Your task to perform on an android device: choose inbox layout in the gmail app Image 0: 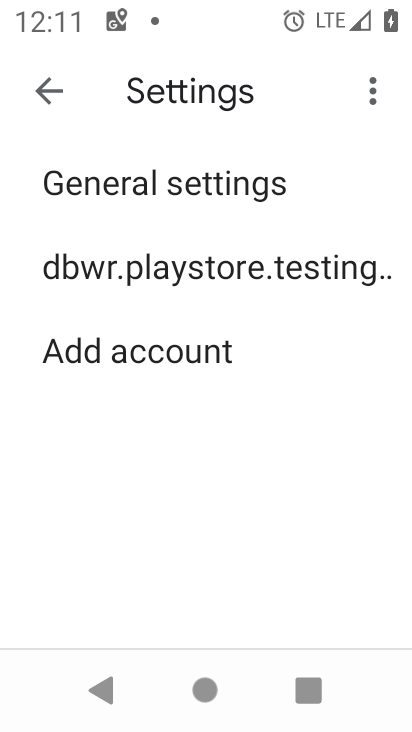
Step 0: press home button
Your task to perform on an android device: choose inbox layout in the gmail app Image 1: 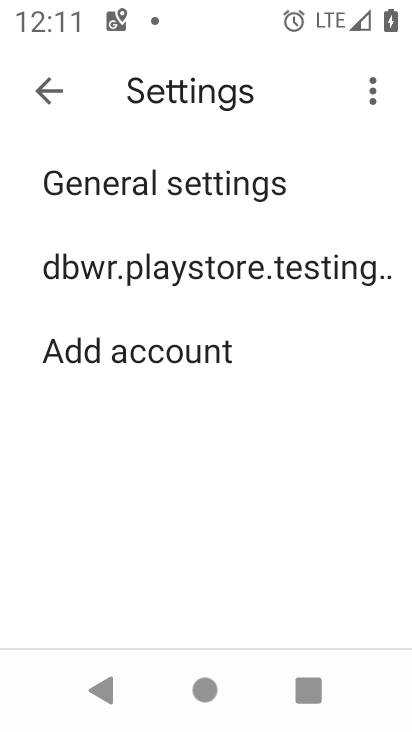
Step 1: press home button
Your task to perform on an android device: choose inbox layout in the gmail app Image 2: 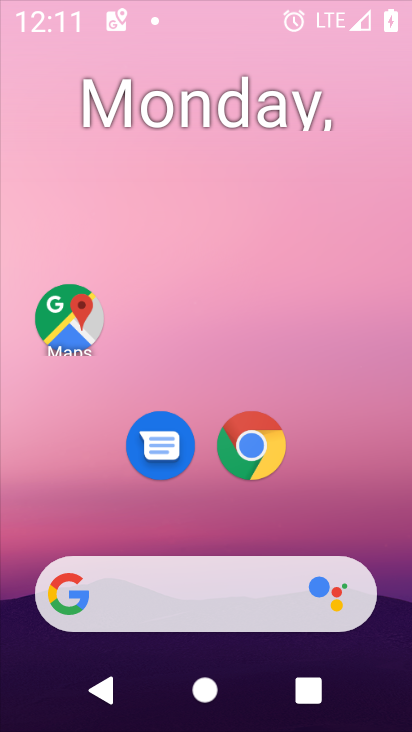
Step 2: drag from (198, 600) to (227, 265)
Your task to perform on an android device: choose inbox layout in the gmail app Image 3: 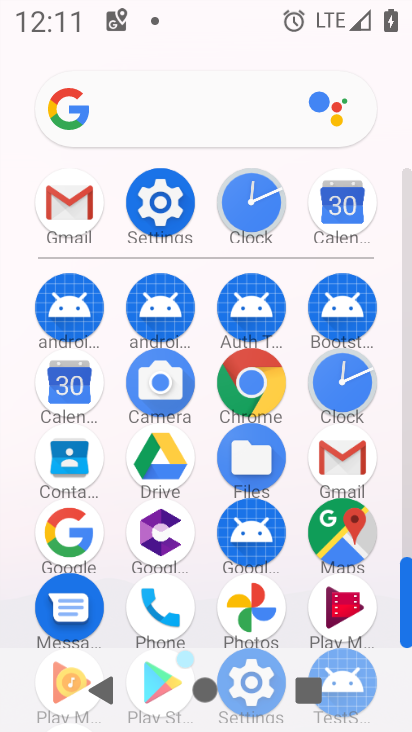
Step 3: click (67, 197)
Your task to perform on an android device: choose inbox layout in the gmail app Image 4: 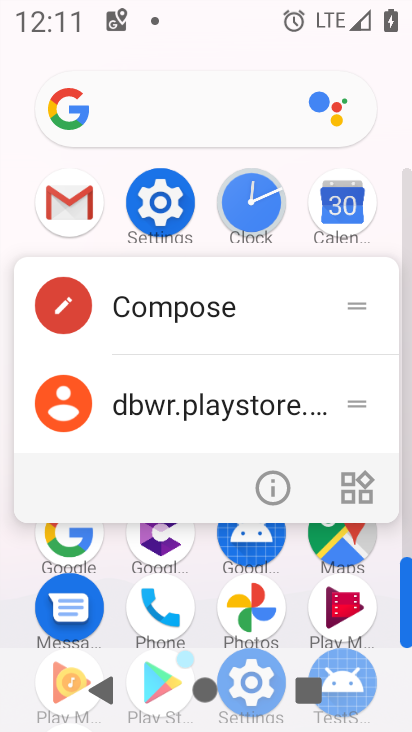
Step 4: click (212, 402)
Your task to perform on an android device: choose inbox layout in the gmail app Image 5: 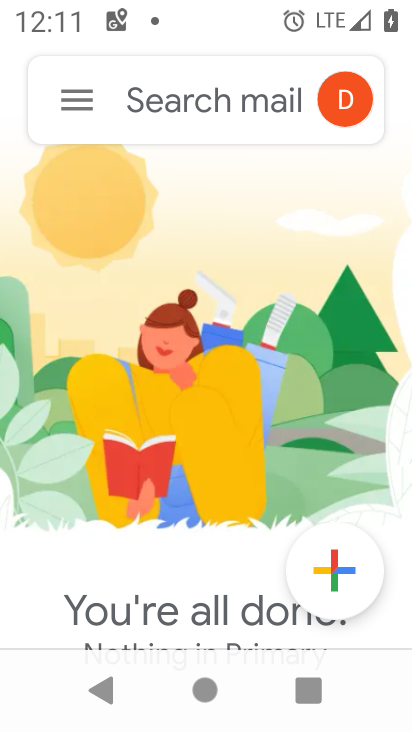
Step 5: click (79, 104)
Your task to perform on an android device: choose inbox layout in the gmail app Image 6: 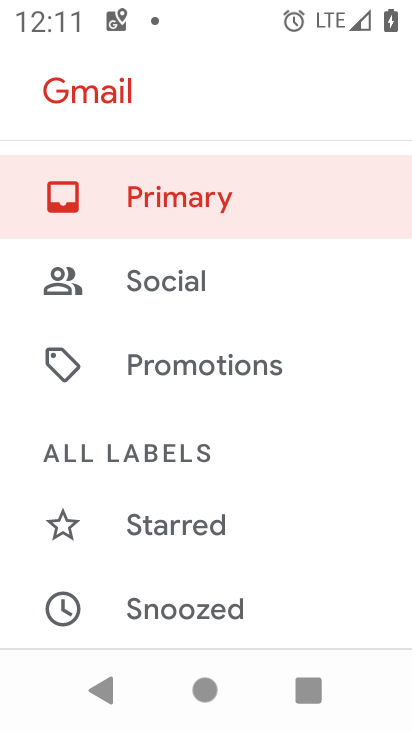
Step 6: click (166, 183)
Your task to perform on an android device: choose inbox layout in the gmail app Image 7: 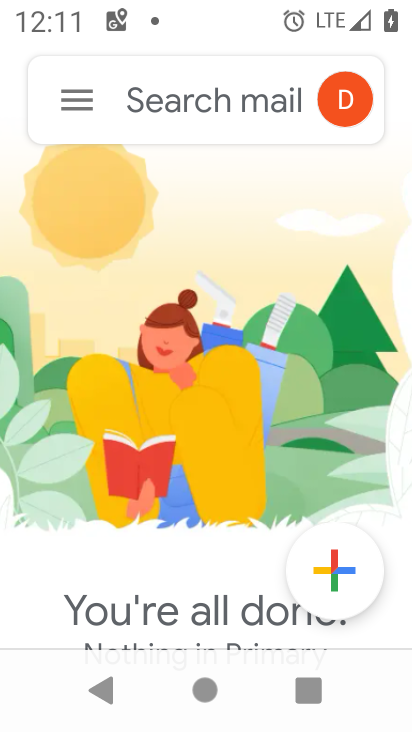
Step 7: task complete